Your task to perform on an android device: turn on showing notifications on the lock screen Image 0: 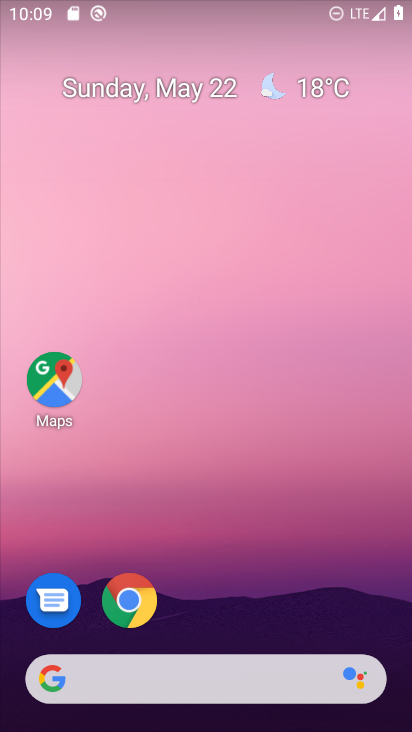
Step 0: drag from (352, 628) to (349, 49)
Your task to perform on an android device: turn on showing notifications on the lock screen Image 1: 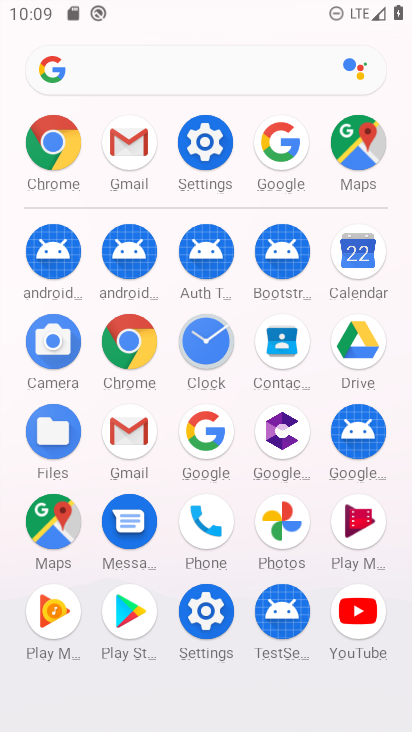
Step 1: click (222, 136)
Your task to perform on an android device: turn on showing notifications on the lock screen Image 2: 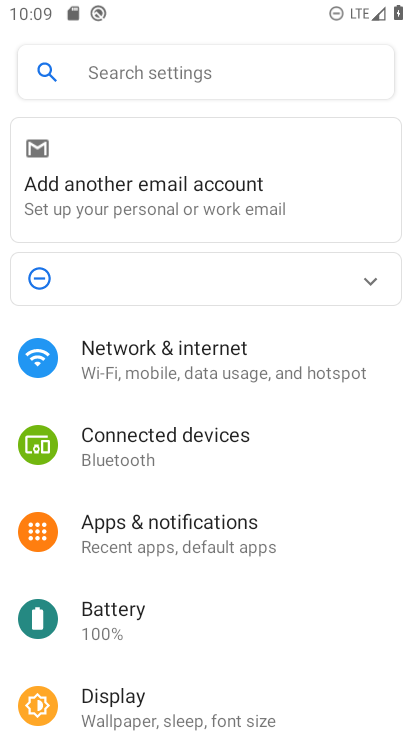
Step 2: click (294, 548)
Your task to perform on an android device: turn on showing notifications on the lock screen Image 3: 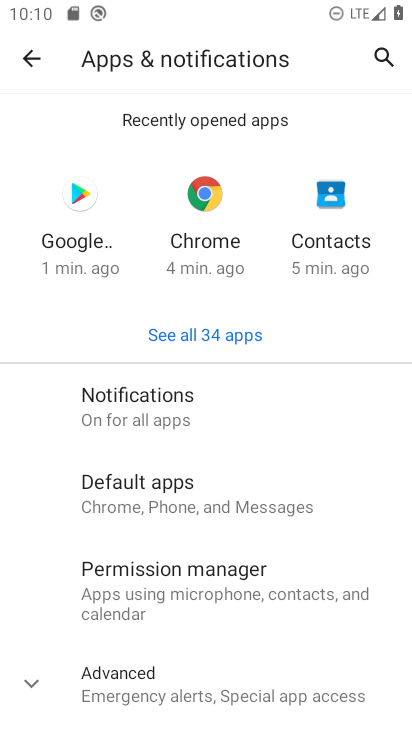
Step 3: click (157, 437)
Your task to perform on an android device: turn on showing notifications on the lock screen Image 4: 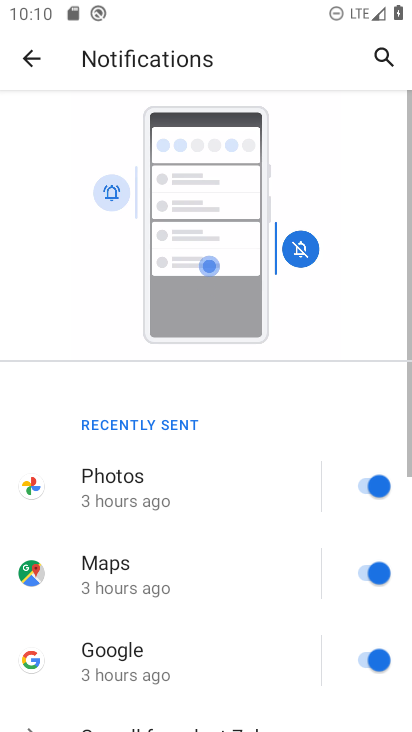
Step 4: drag from (258, 658) to (253, 9)
Your task to perform on an android device: turn on showing notifications on the lock screen Image 5: 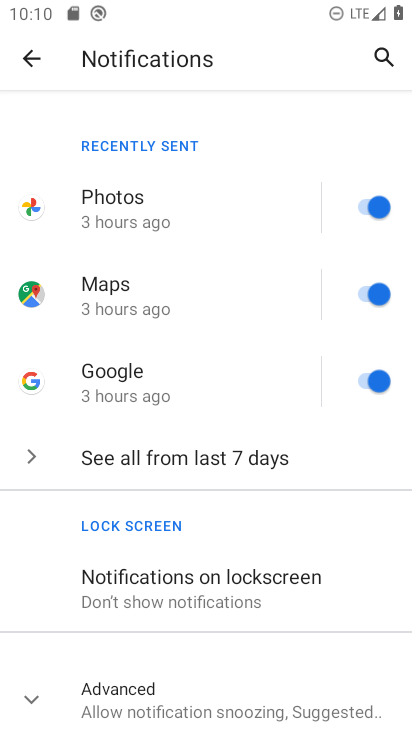
Step 5: click (278, 580)
Your task to perform on an android device: turn on showing notifications on the lock screen Image 6: 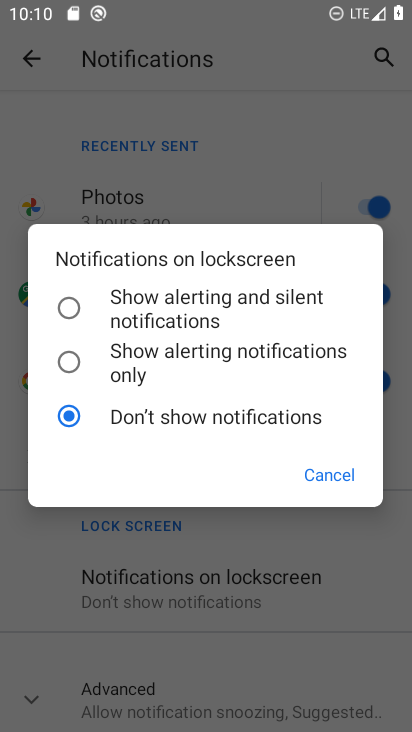
Step 6: click (182, 299)
Your task to perform on an android device: turn on showing notifications on the lock screen Image 7: 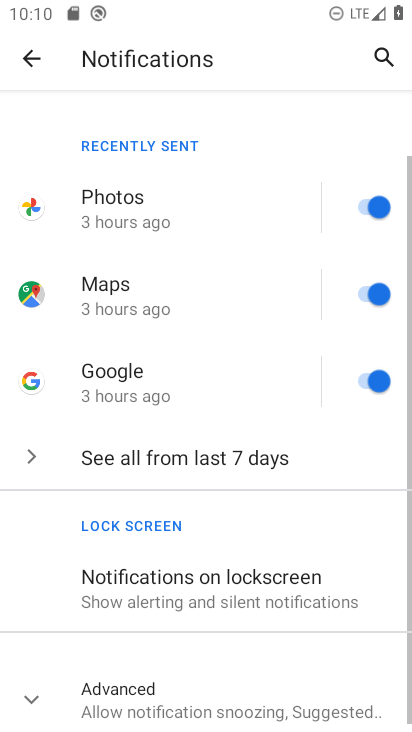
Step 7: task complete